Your task to perform on an android device: turn on the 24-hour format for clock Image 0: 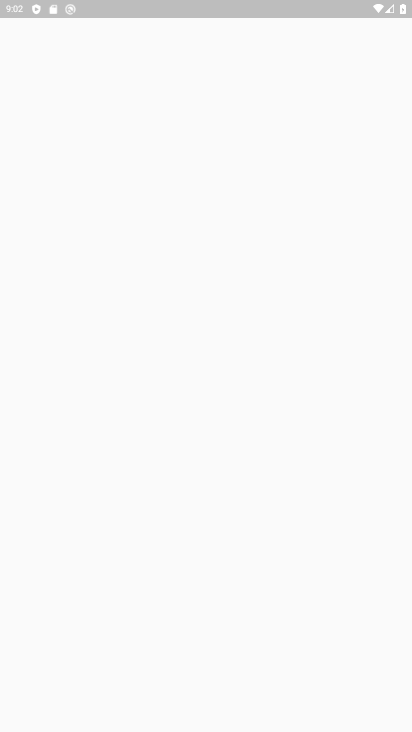
Step 0: press home button
Your task to perform on an android device: turn on the 24-hour format for clock Image 1: 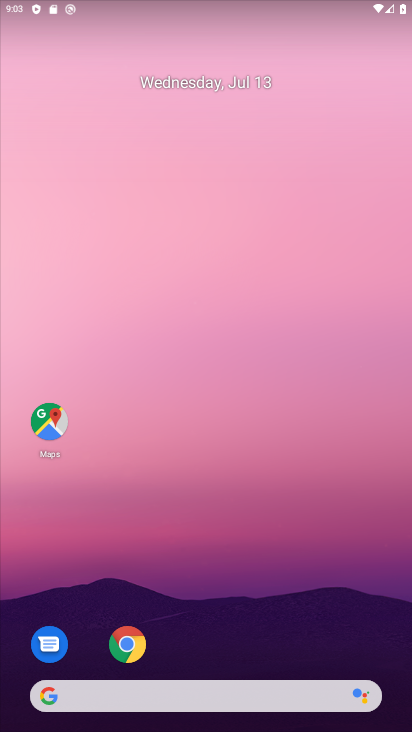
Step 1: drag from (251, 651) to (222, 296)
Your task to perform on an android device: turn on the 24-hour format for clock Image 2: 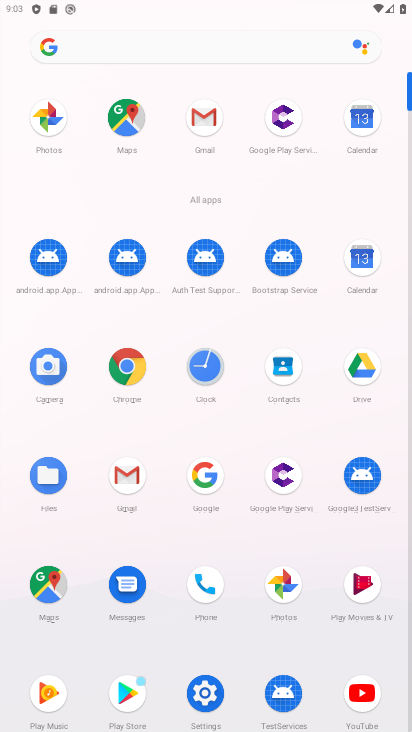
Step 2: click (203, 375)
Your task to perform on an android device: turn on the 24-hour format for clock Image 3: 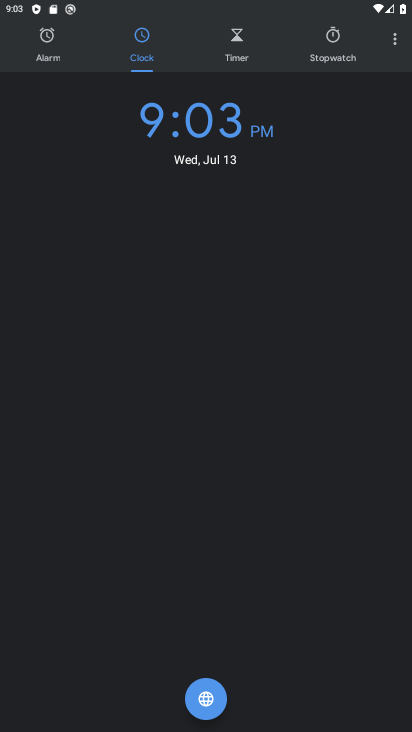
Step 3: click (395, 46)
Your task to perform on an android device: turn on the 24-hour format for clock Image 4: 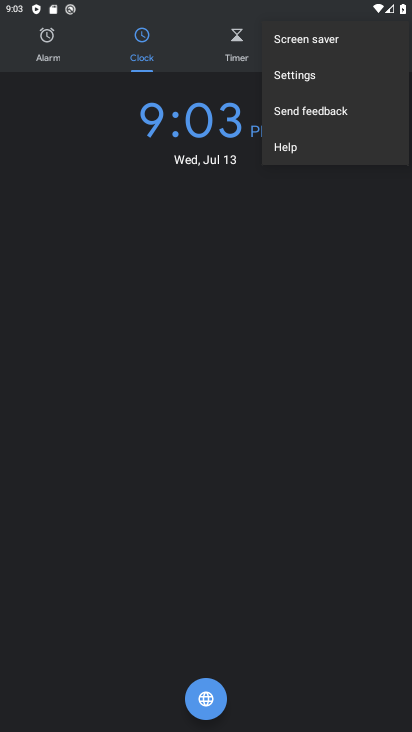
Step 4: click (363, 67)
Your task to perform on an android device: turn on the 24-hour format for clock Image 5: 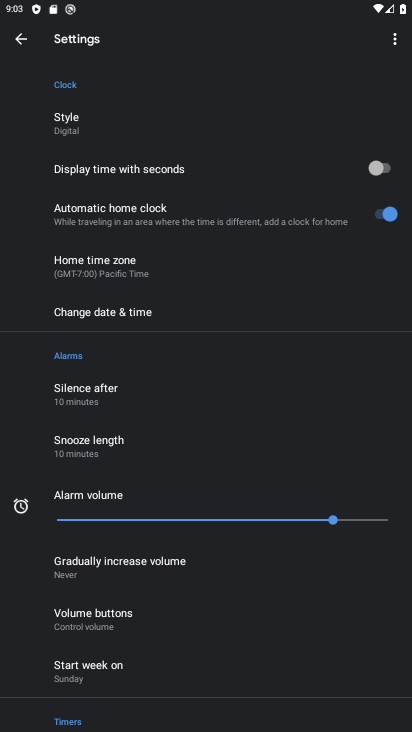
Step 5: click (273, 320)
Your task to perform on an android device: turn on the 24-hour format for clock Image 6: 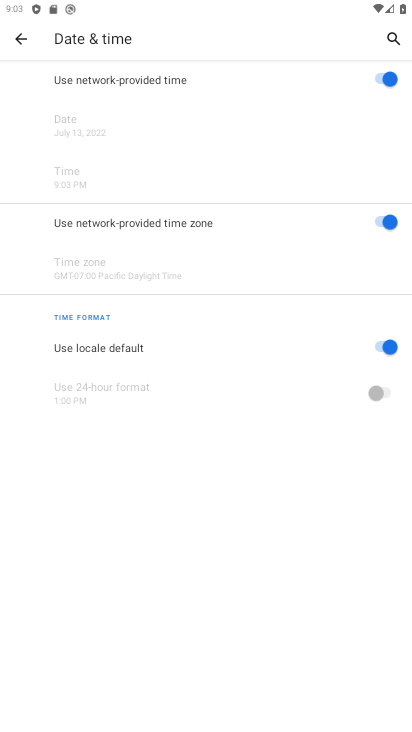
Step 6: click (387, 346)
Your task to perform on an android device: turn on the 24-hour format for clock Image 7: 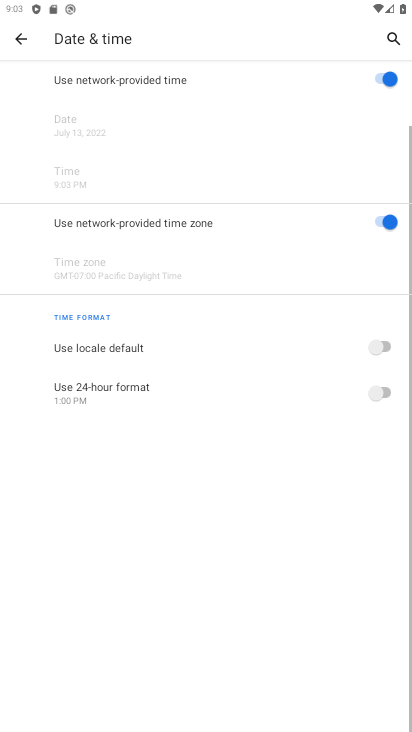
Step 7: click (381, 394)
Your task to perform on an android device: turn on the 24-hour format for clock Image 8: 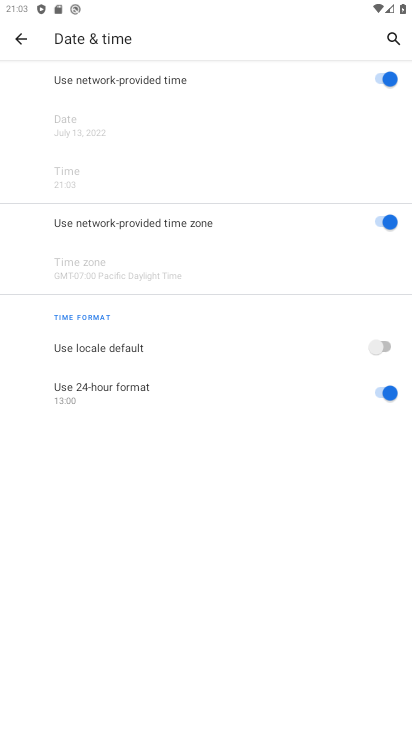
Step 8: task complete